Your task to perform on an android device: toggle sleep mode Image 0: 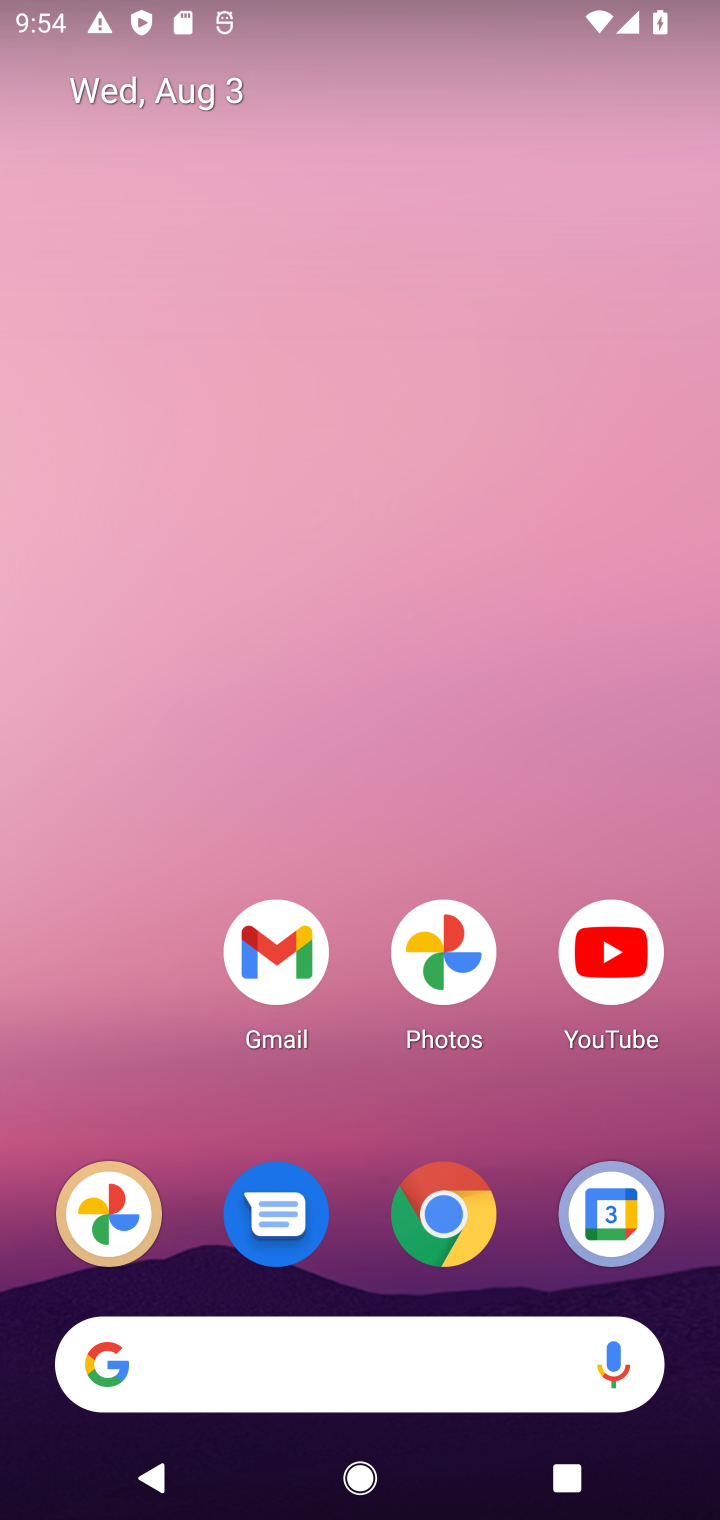
Step 0: press home button
Your task to perform on an android device: toggle sleep mode Image 1: 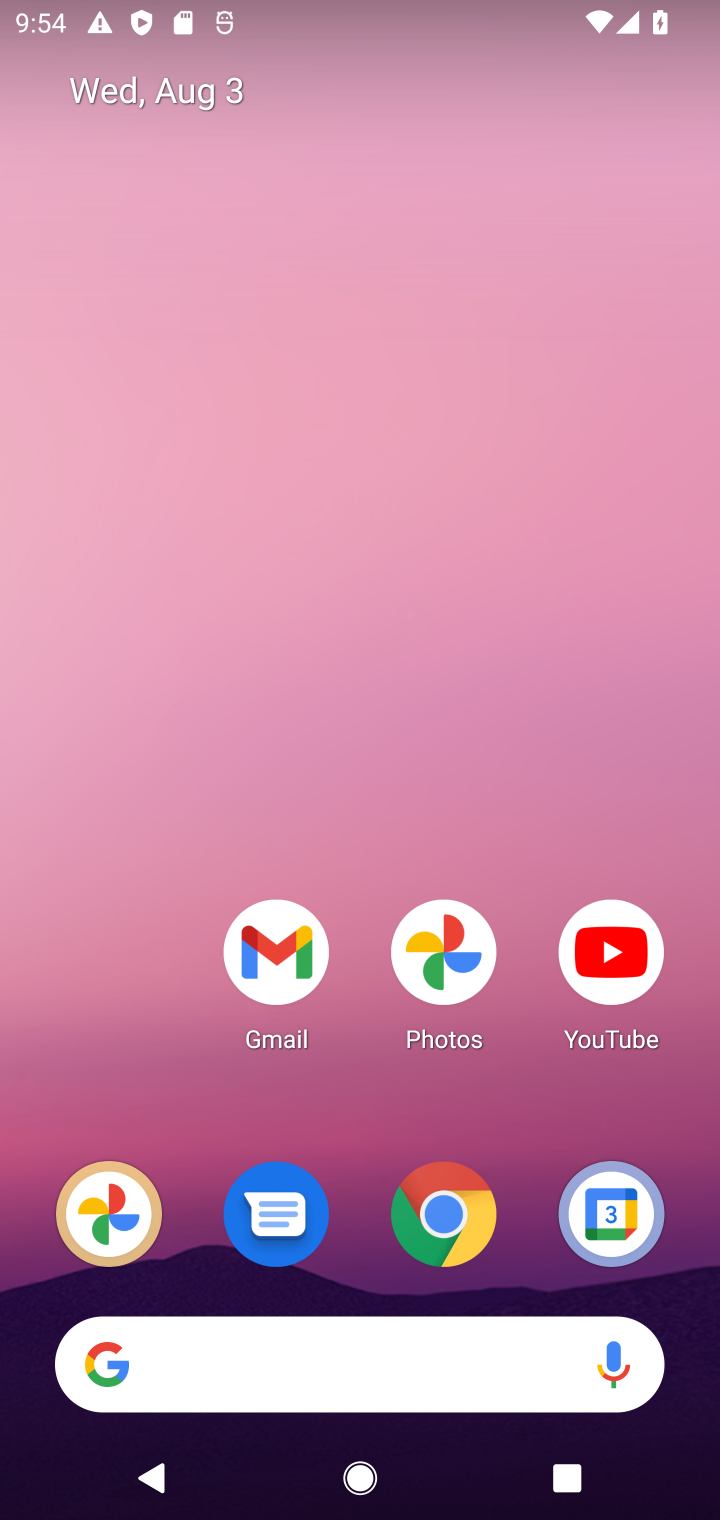
Step 1: drag from (467, 814) to (404, 94)
Your task to perform on an android device: toggle sleep mode Image 2: 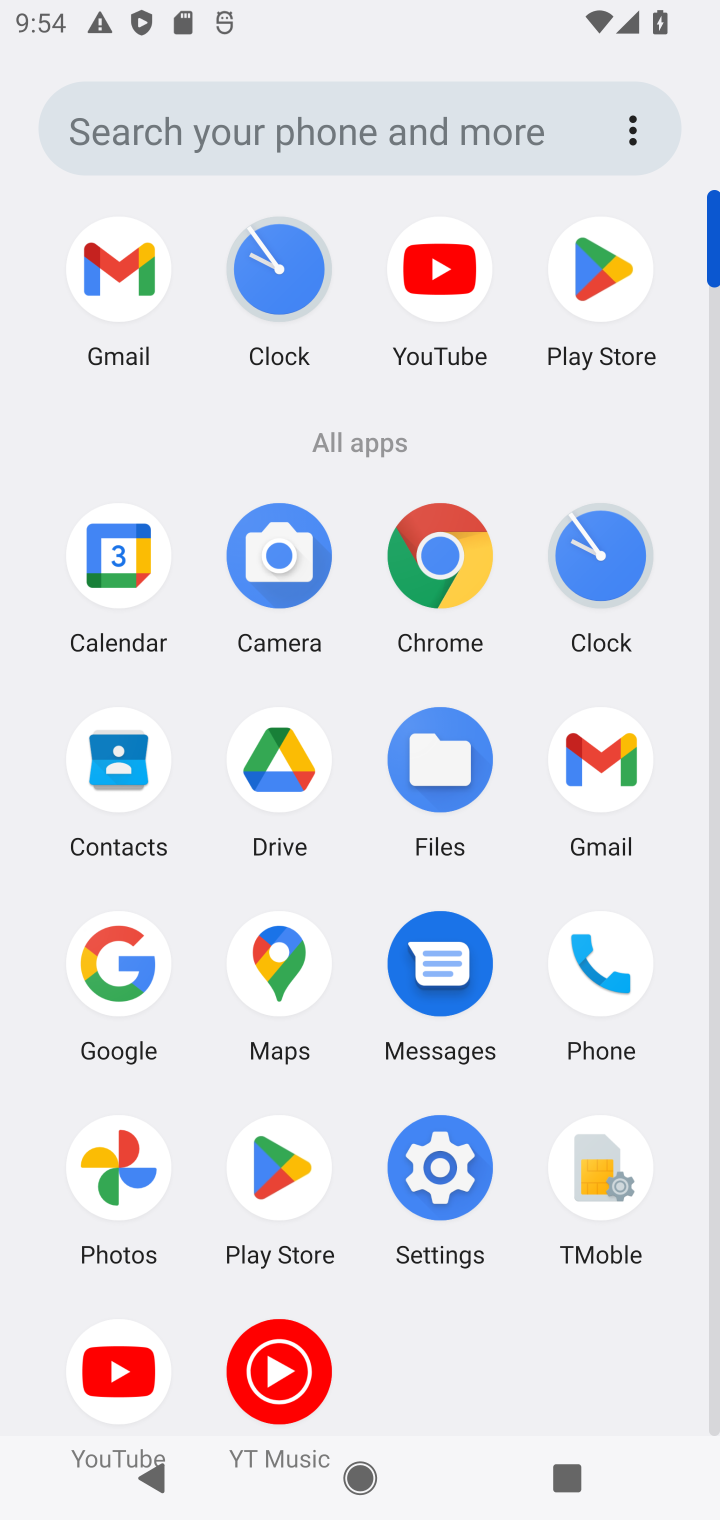
Step 2: click (452, 1197)
Your task to perform on an android device: toggle sleep mode Image 3: 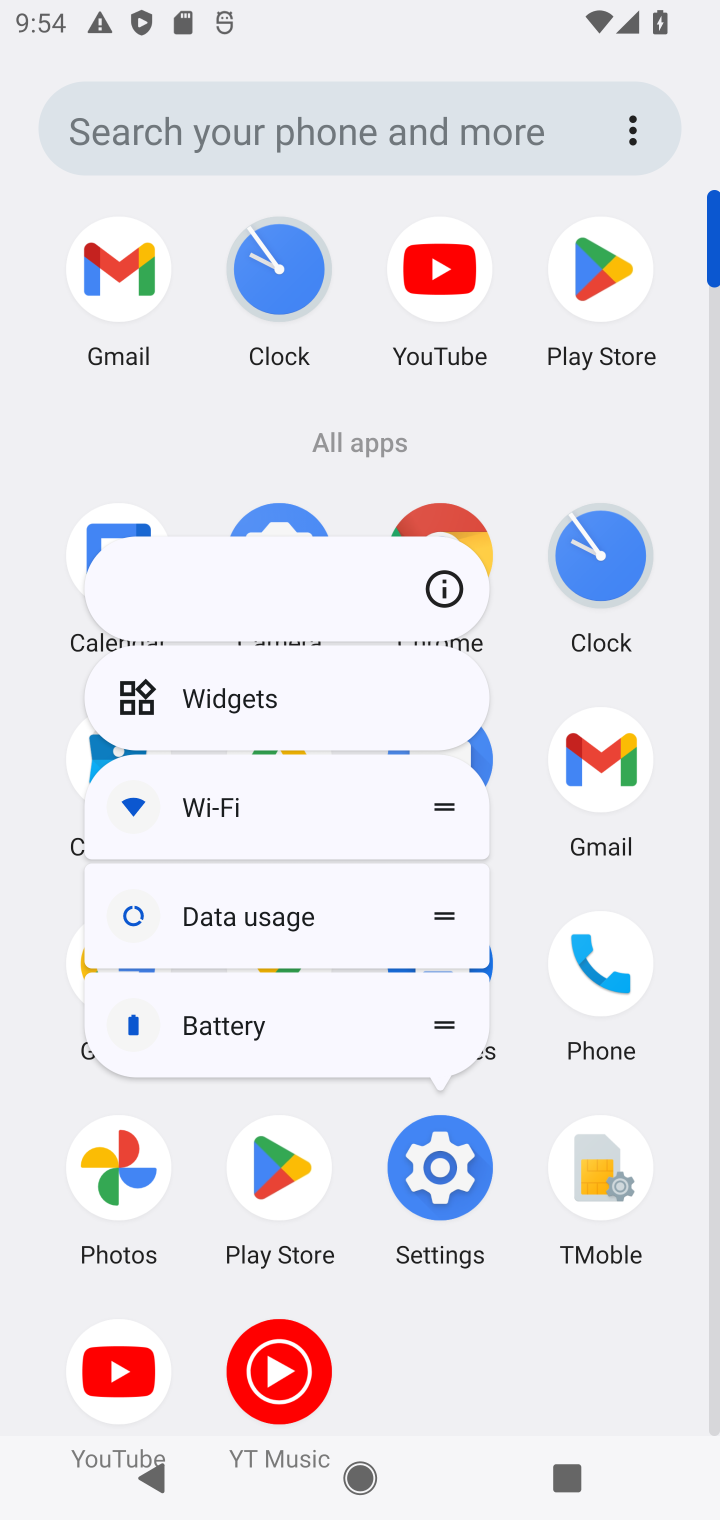
Step 3: click (452, 1197)
Your task to perform on an android device: toggle sleep mode Image 4: 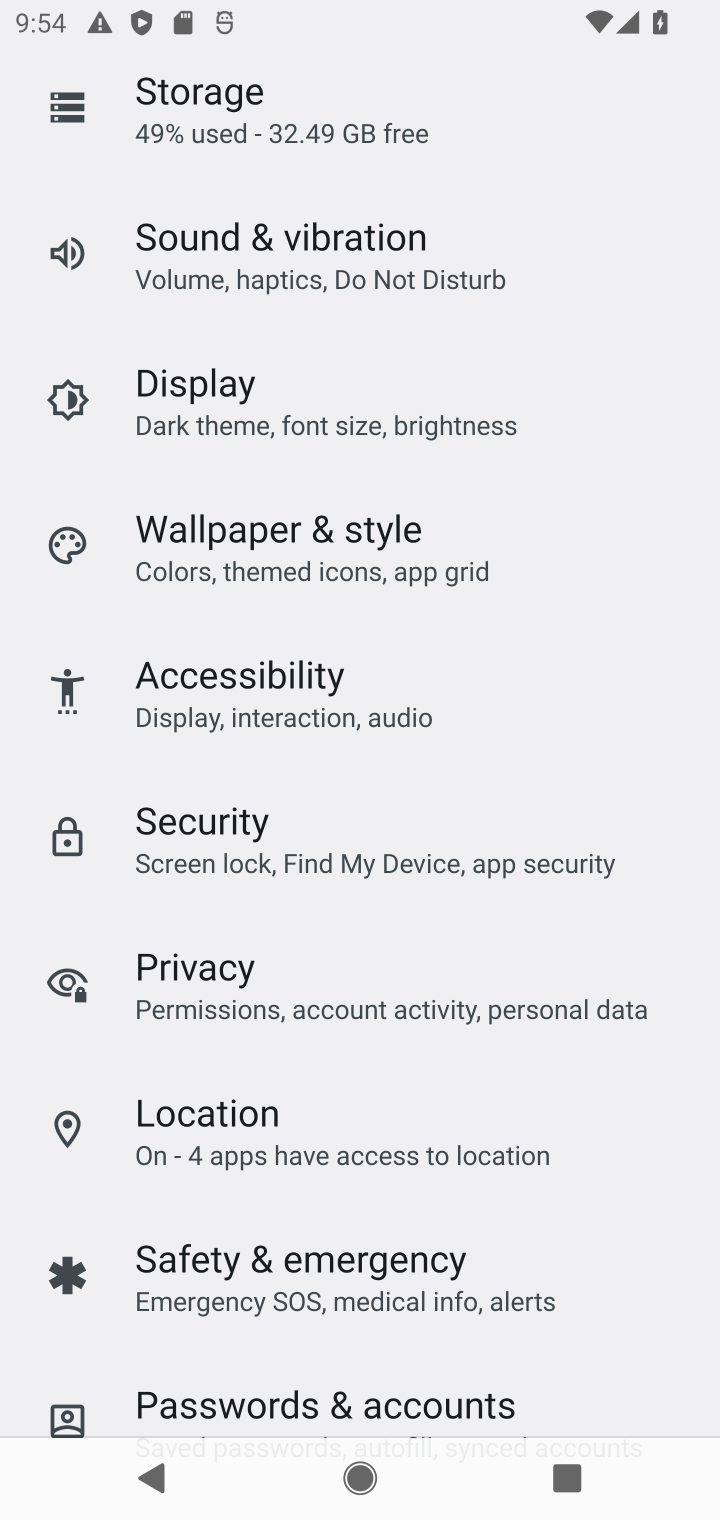
Step 4: click (204, 438)
Your task to perform on an android device: toggle sleep mode Image 5: 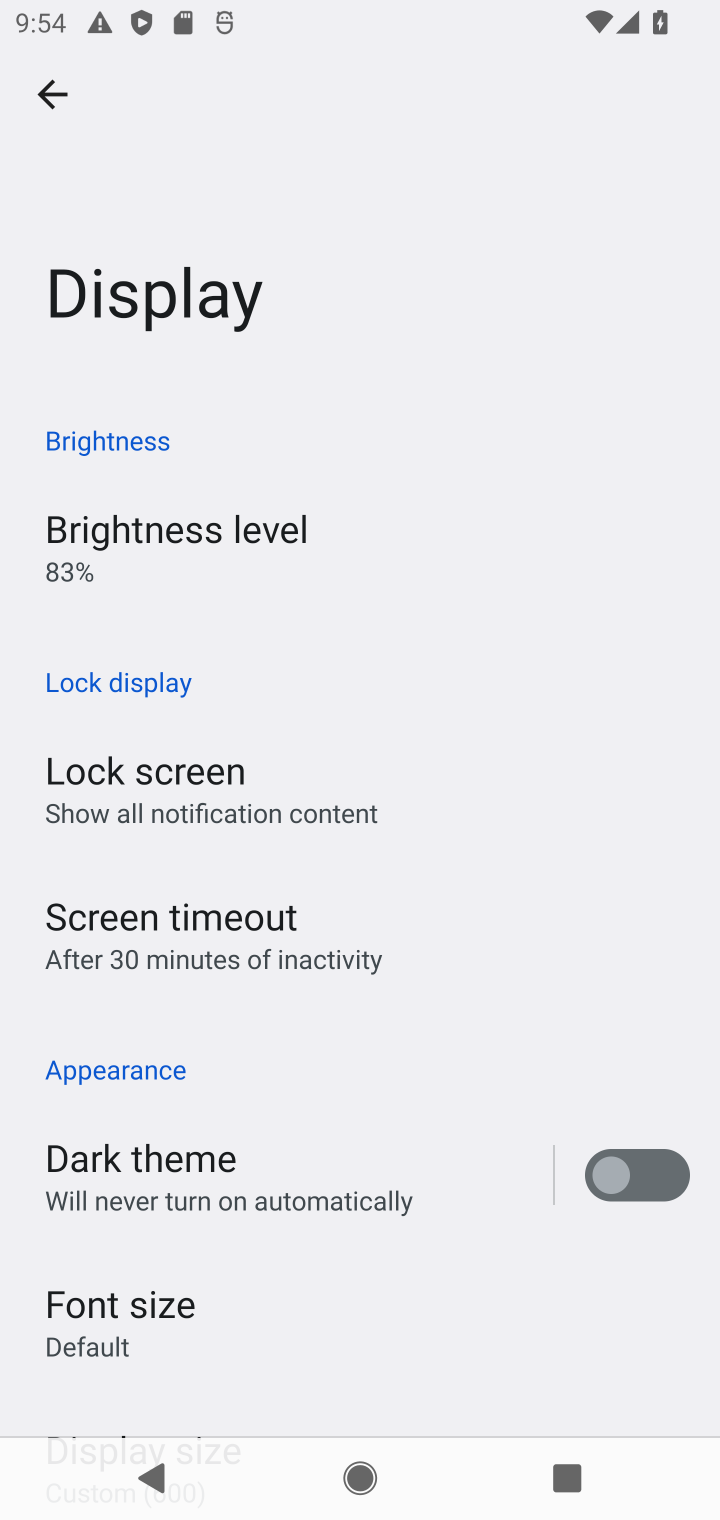
Step 5: task complete